Your task to perform on an android device: turn off smart reply in the gmail app Image 0: 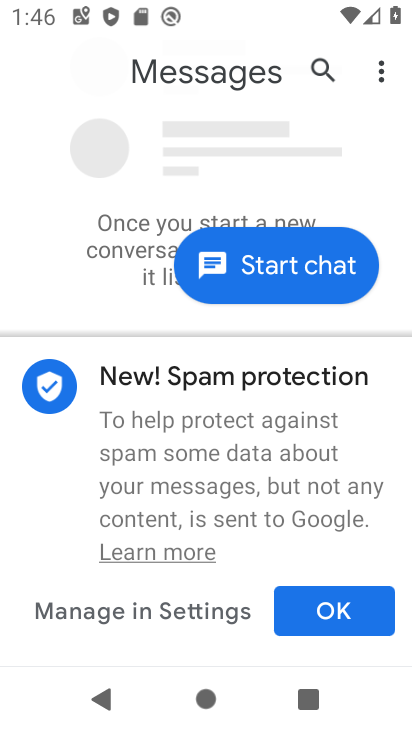
Step 0: press home button
Your task to perform on an android device: turn off smart reply in the gmail app Image 1: 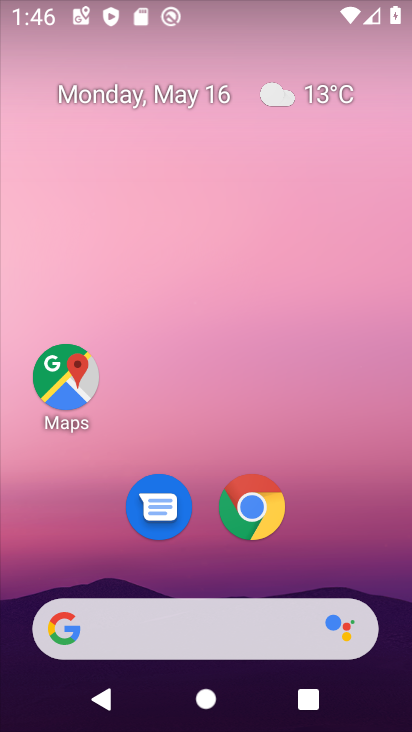
Step 1: drag from (365, 541) to (367, 74)
Your task to perform on an android device: turn off smart reply in the gmail app Image 2: 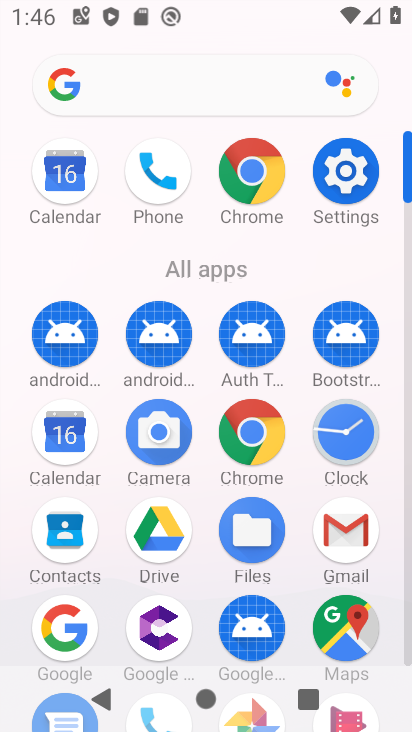
Step 2: click (352, 532)
Your task to perform on an android device: turn off smart reply in the gmail app Image 3: 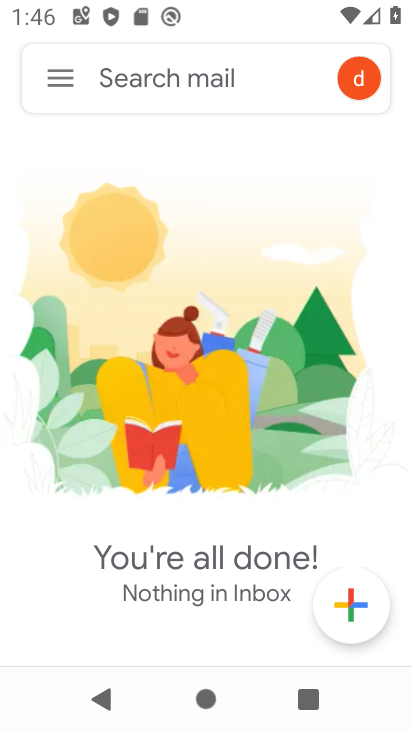
Step 3: click (58, 72)
Your task to perform on an android device: turn off smart reply in the gmail app Image 4: 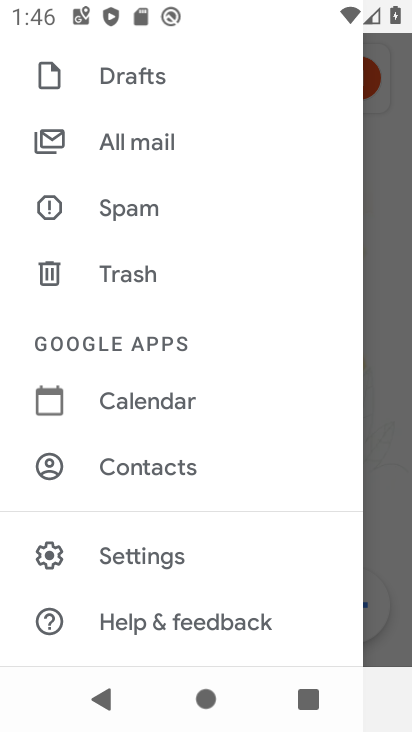
Step 4: drag from (279, 547) to (278, 344)
Your task to perform on an android device: turn off smart reply in the gmail app Image 5: 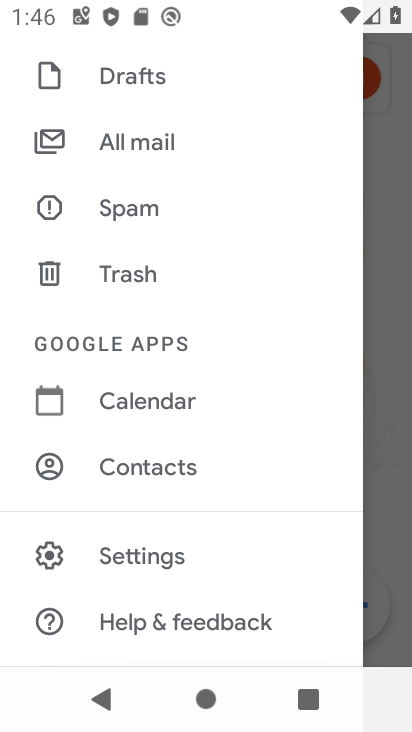
Step 5: drag from (298, 253) to (281, 409)
Your task to perform on an android device: turn off smart reply in the gmail app Image 6: 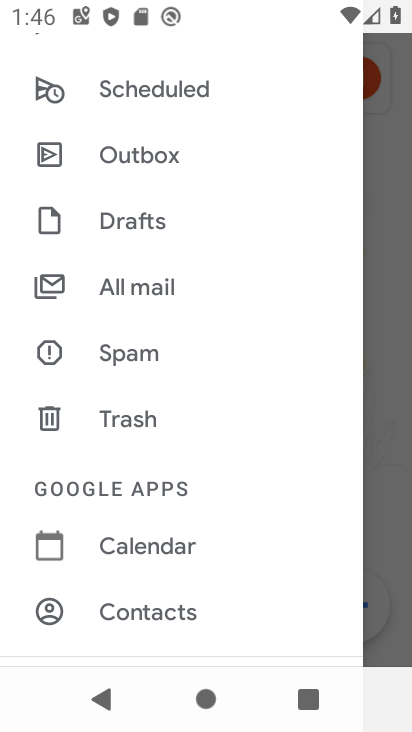
Step 6: drag from (285, 233) to (280, 365)
Your task to perform on an android device: turn off smart reply in the gmail app Image 7: 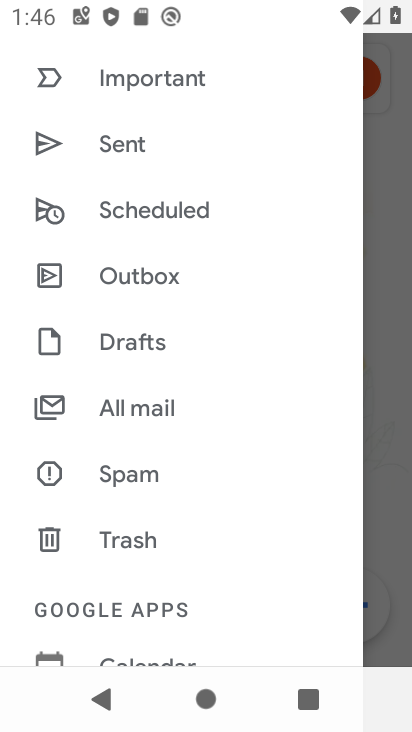
Step 7: drag from (285, 189) to (284, 367)
Your task to perform on an android device: turn off smart reply in the gmail app Image 8: 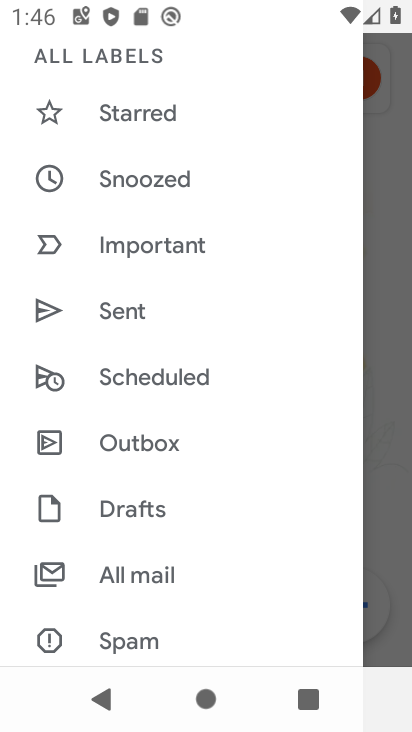
Step 8: drag from (293, 286) to (285, 476)
Your task to perform on an android device: turn off smart reply in the gmail app Image 9: 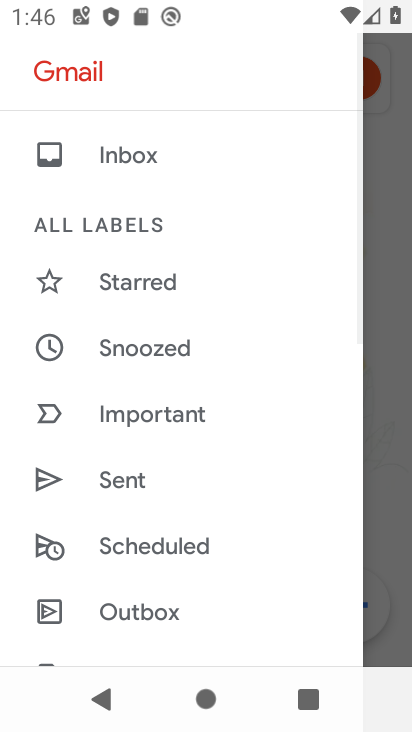
Step 9: drag from (270, 484) to (276, 275)
Your task to perform on an android device: turn off smart reply in the gmail app Image 10: 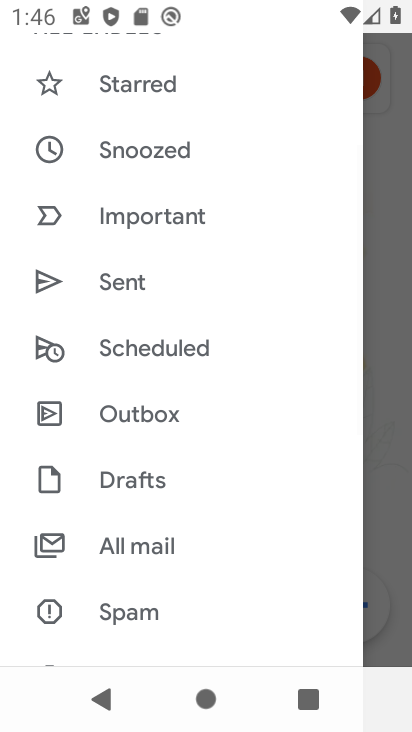
Step 10: drag from (270, 537) to (277, 327)
Your task to perform on an android device: turn off smart reply in the gmail app Image 11: 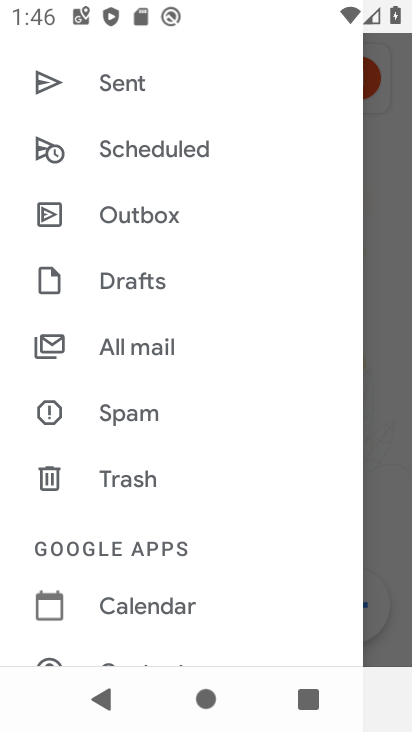
Step 11: drag from (277, 579) to (293, 408)
Your task to perform on an android device: turn off smart reply in the gmail app Image 12: 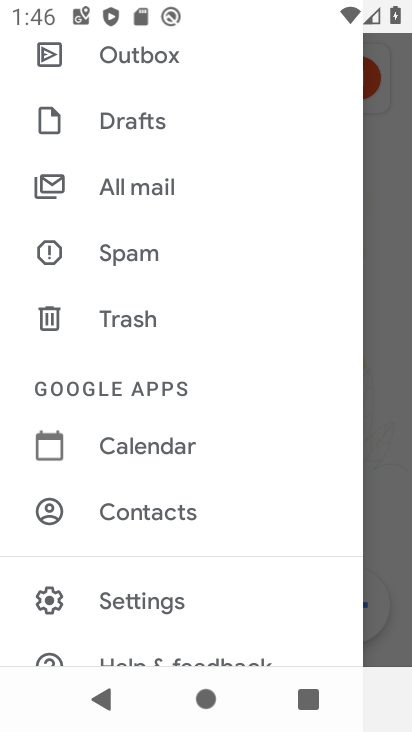
Step 12: drag from (278, 625) to (284, 465)
Your task to perform on an android device: turn off smart reply in the gmail app Image 13: 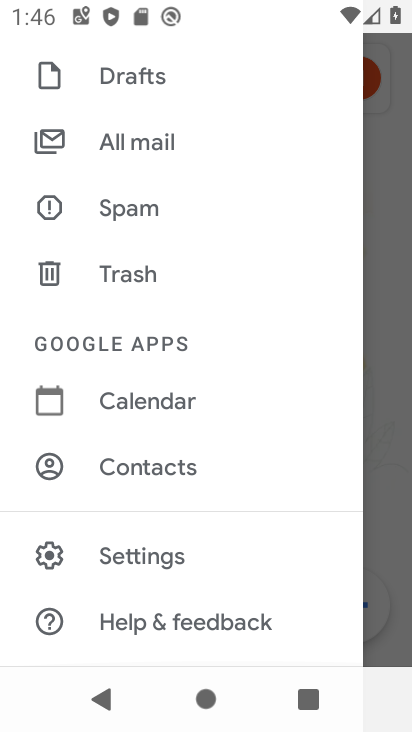
Step 13: click (188, 557)
Your task to perform on an android device: turn off smart reply in the gmail app Image 14: 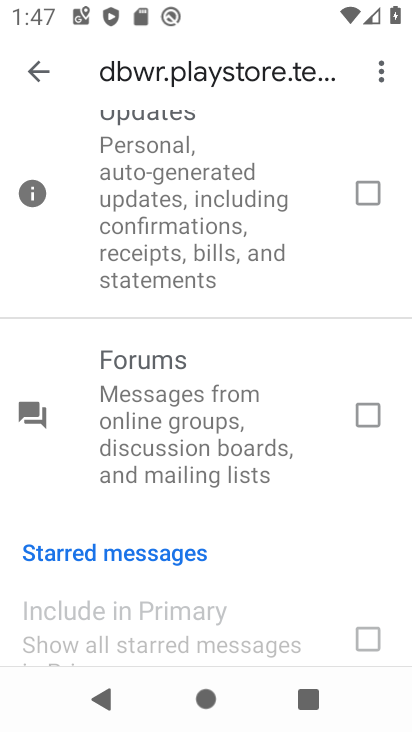
Step 14: click (46, 90)
Your task to perform on an android device: turn off smart reply in the gmail app Image 15: 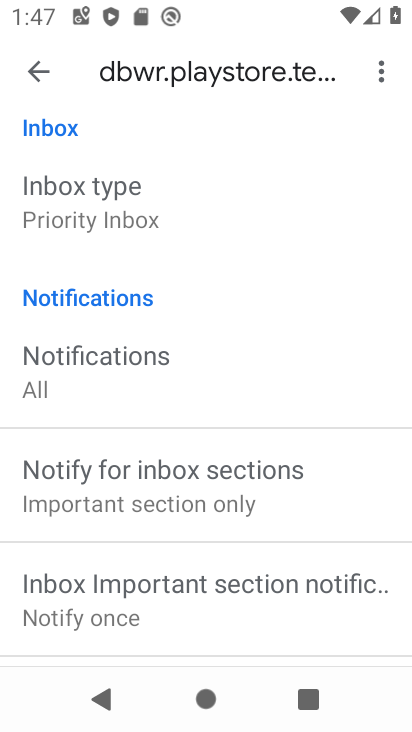
Step 15: drag from (275, 548) to (283, 396)
Your task to perform on an android device: turn off smart reply in the gmail app Image 16: 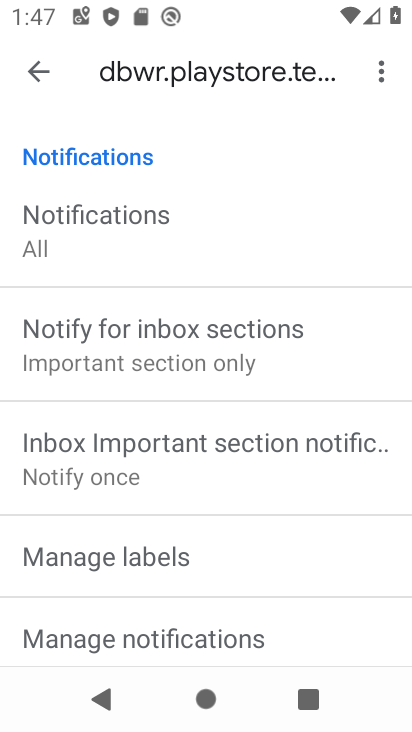
Step 16: drag from (304, 564) to (316, 393)
Your task to perform on an android device: turn off smart reply in the gmail app Image 17: 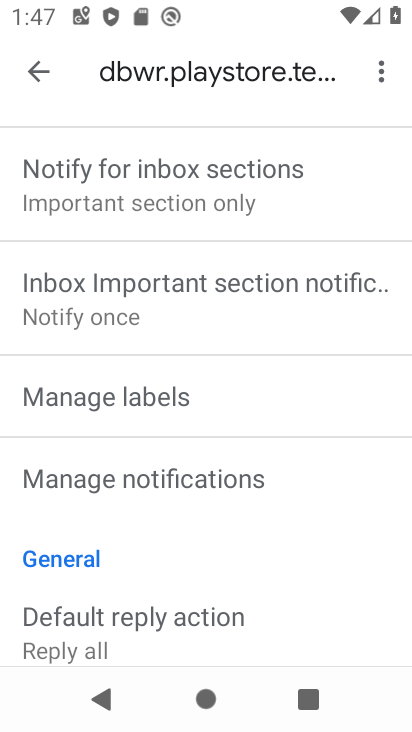
Step 17: drag from (332, 595) to (344, 440)
Your task to perform on an android device: turn off smart reply in the gmail app Image 18: 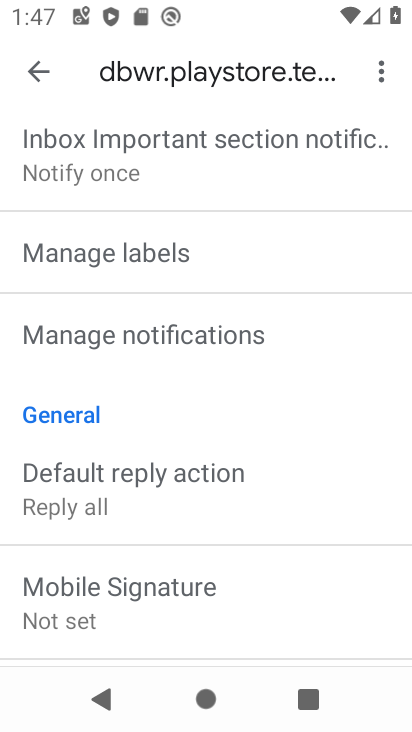
Step 18: drag from (338, 607) to (347, 455)
Your task to perform on an android device: turn off smart reply in the gmail app Image 19: 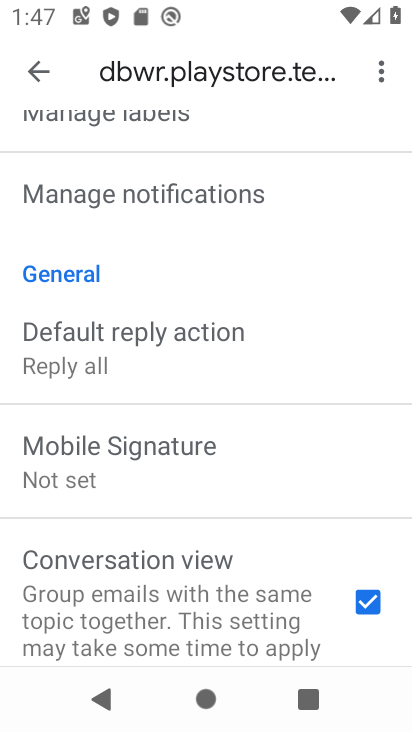
Step 19: drag from (305, 635) to (310, 458)
Your task to perform on an android device: turn off smart reply in the gmail app Image 20: 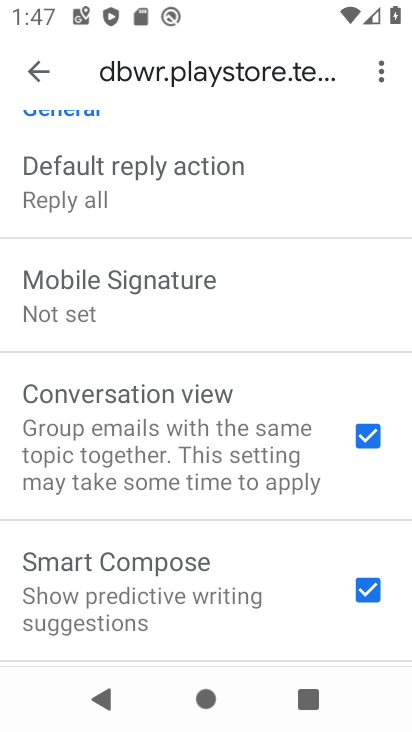
Step 20: drag from (294, 622) to (308, 406)
Your task to perform on an android device: turn off smart reply in the gmail app Image 21: 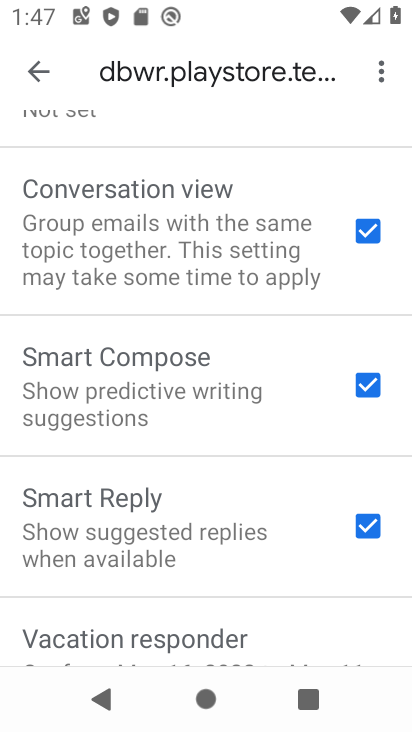
Step 21: drag from (294, 616) to (294, 493)
Your task to perform on an android device: turn off smart reply in the gmail app Image 22: 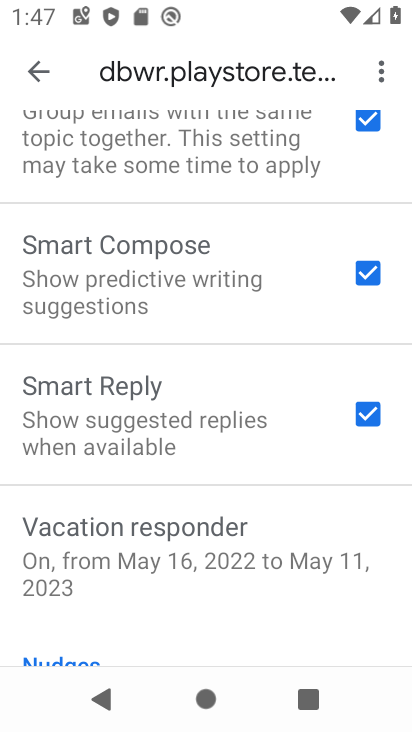
Step 22: click (365, 417)
Your task to perform on an android device: turn off smart reply in the gmail app Image 23: 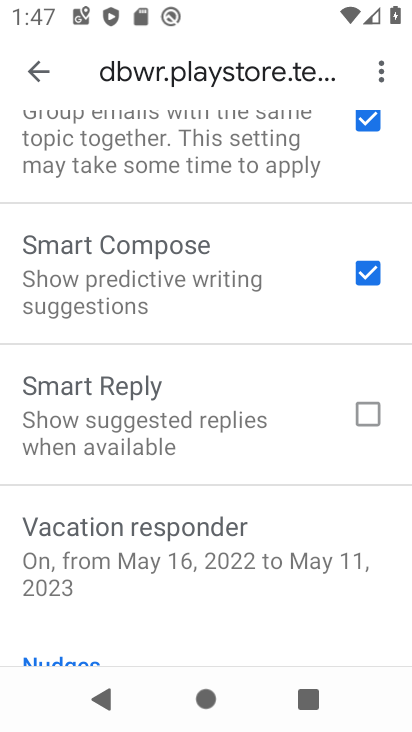
Step 23: task complete